Your task to perform on an android device: delete location history Image 0: 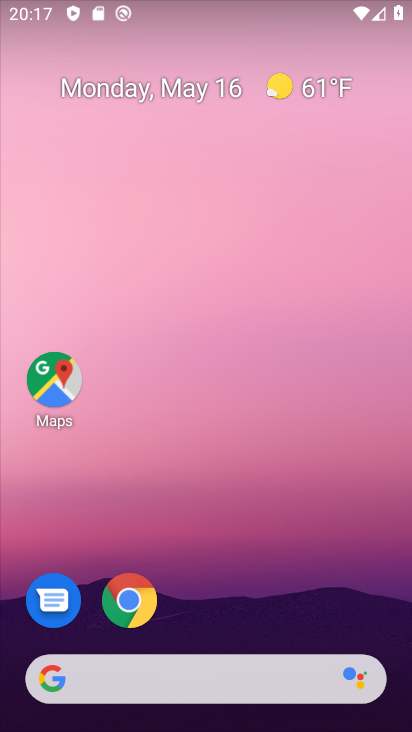
Step 0: drag from (211, 628) to (297, 145)
Your task to perform on an android device: delete location history Image 1: 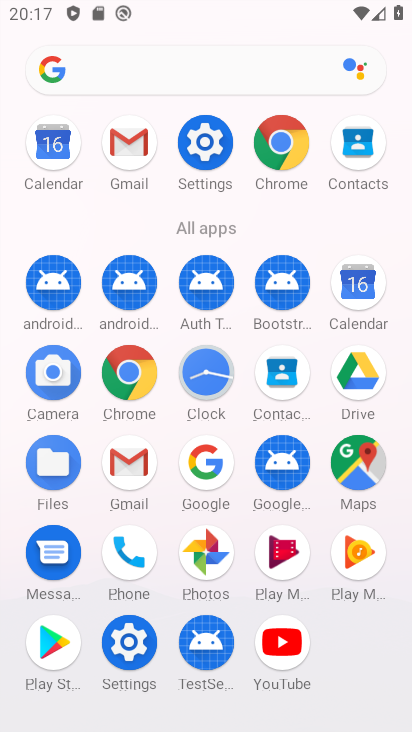
Step 1: click (120, 654)
Your task to perform on an android device: delete location history Image 2: 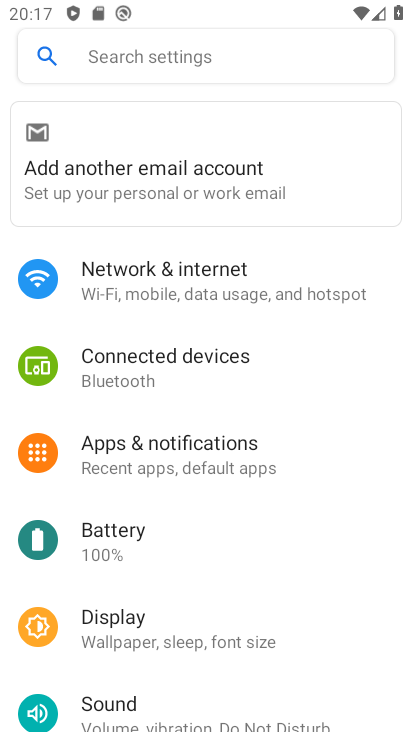
Step 2: drag from (168, 629) to (287, 268)
Your task to perform on an android device: delete location history Image 3: 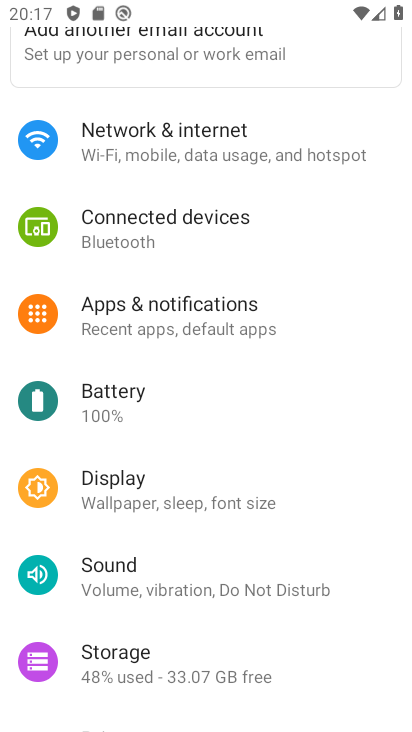
Step 3: drag from (171, 595) to (303, 72)
Your task to perform on an android device: delete location history Image 4: 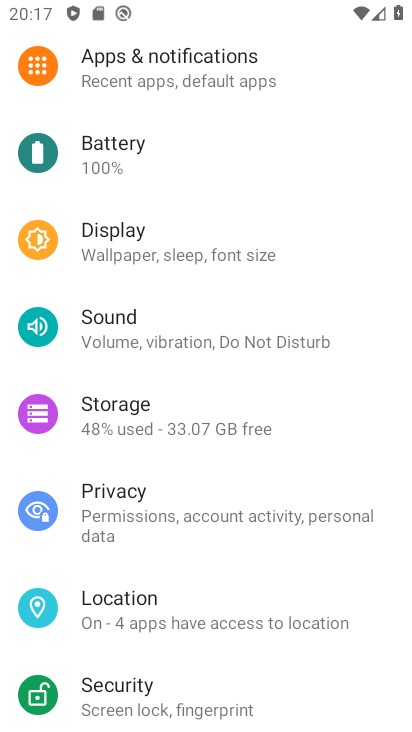
Step 4: click (178, 621)
Your task to perform on an android device: delete location history Image 5: 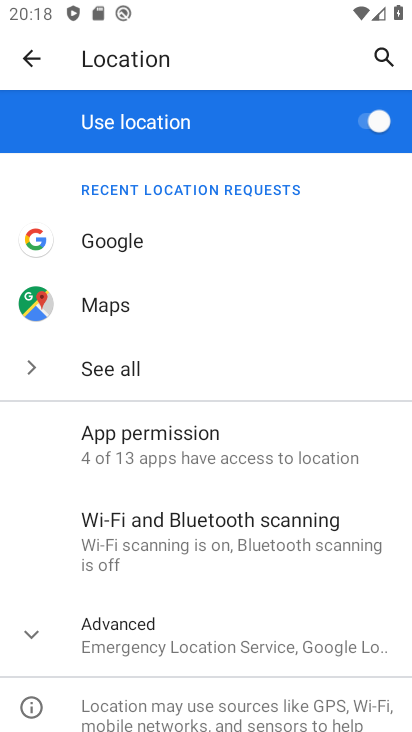
Step 5: click (158, 630)
Your task to perform on an android device: delete location history Image 6: 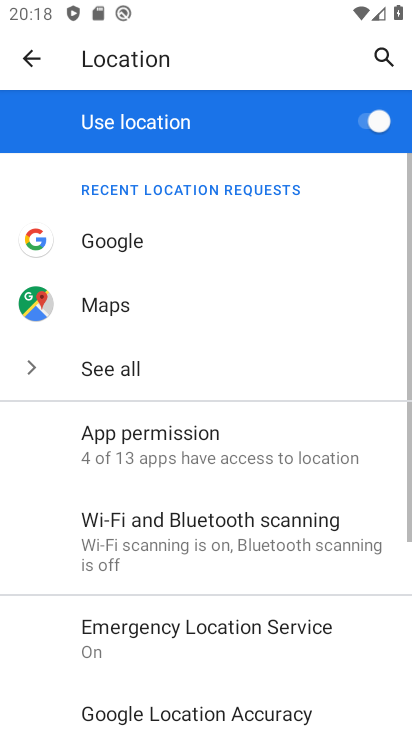
Step 6: drag from (154, 646) to (263, 311)
Your task to perform on an android device: delete location history Image 7: 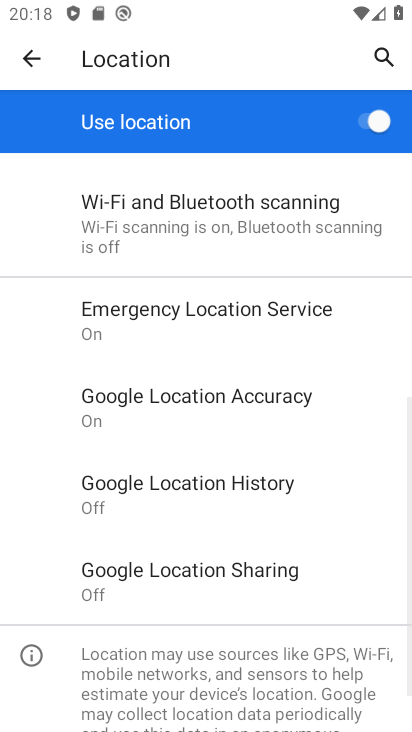
Step 7: click (249, 502)
Your task to perform on an android device: delete location history Image 8: 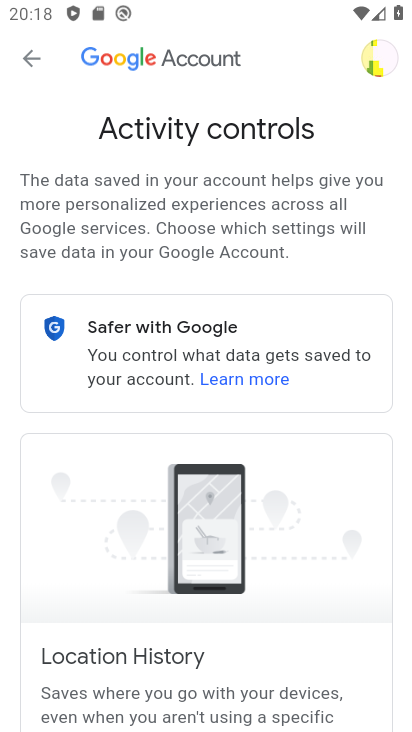
Step 8: drag from (191, 667) to (296, 129)
Your task to perform on an android device: delete location history Image 9: 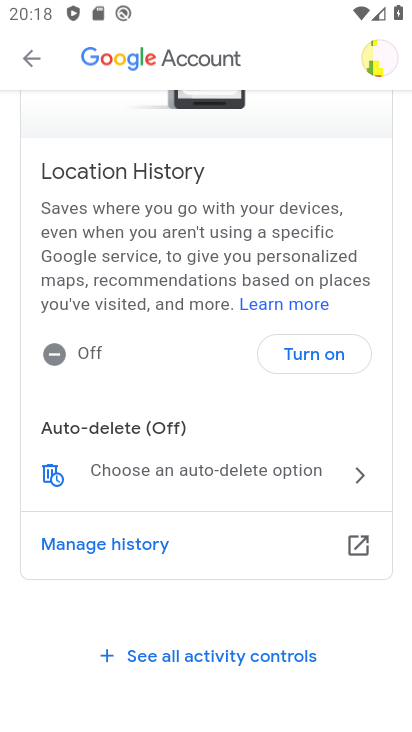
Step 9: click (161, 558)
Your task to perform on an android device: delete location history Image 10: 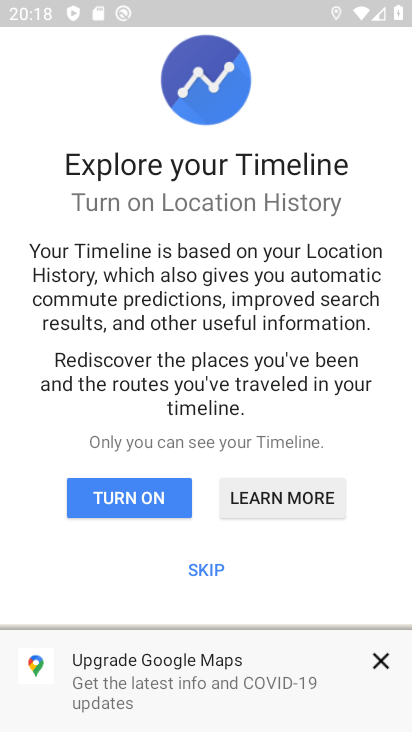
Step 10: click (387, 664)
Your task to perform on an android device: delete location history Image 11: 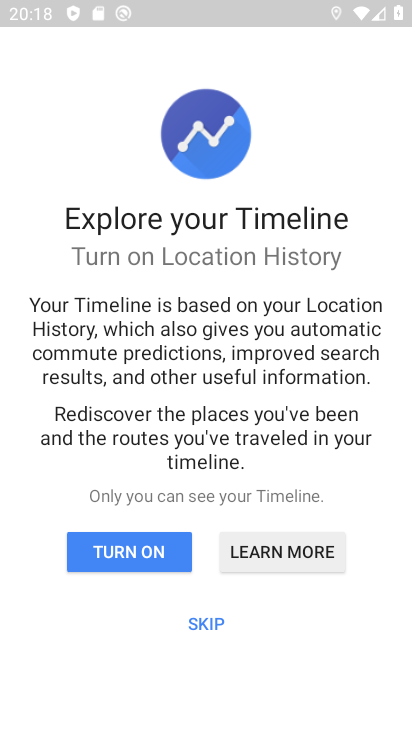
Step 11: click (221, 625)
Your task to perform on an android device: delete location history Image 12: 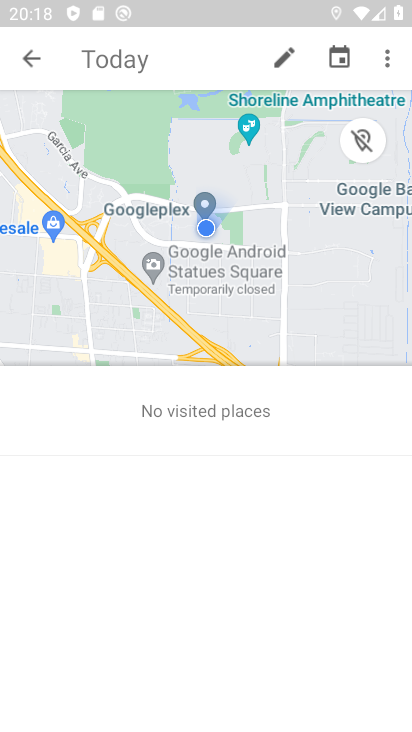
Step 12: task complete